Your task to perform on an android device: empty trash in the gmail app Image 0: 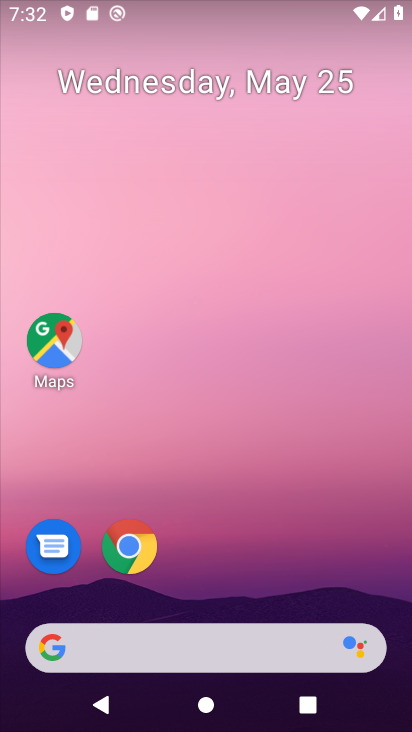
Step 0: drag from (373, 587) to (379, 272)
Your task to perform on an android device: empty trash in the gmail app Image 1: 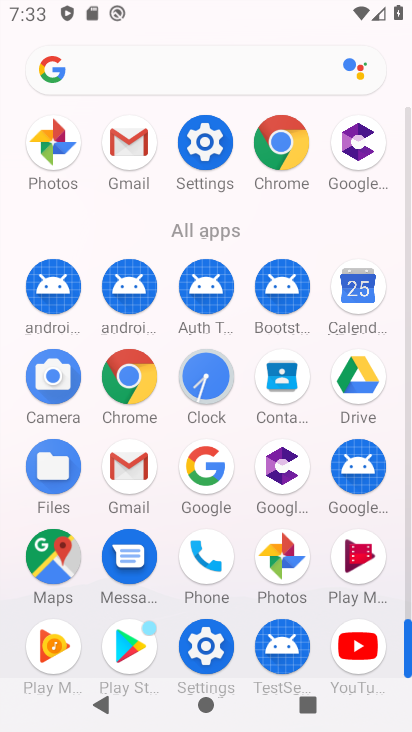
Step 1: click (142, 478)
Your task to perform on an android device: empty trash in the gmail app Image 2: 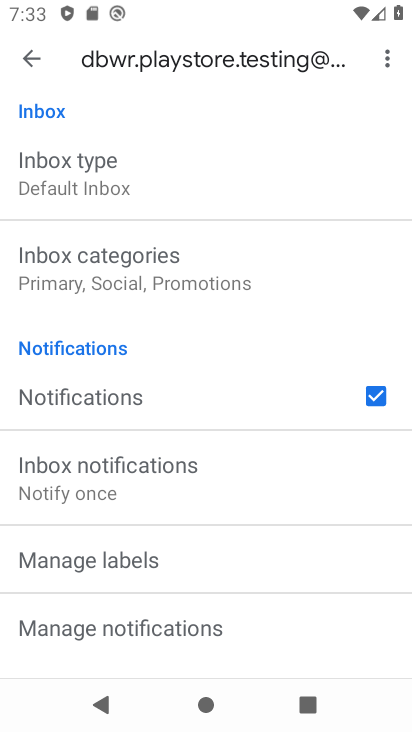
Step 2: click (35, 63)
Your task to perform on an android device: empty trash in the gmail app Image 3: 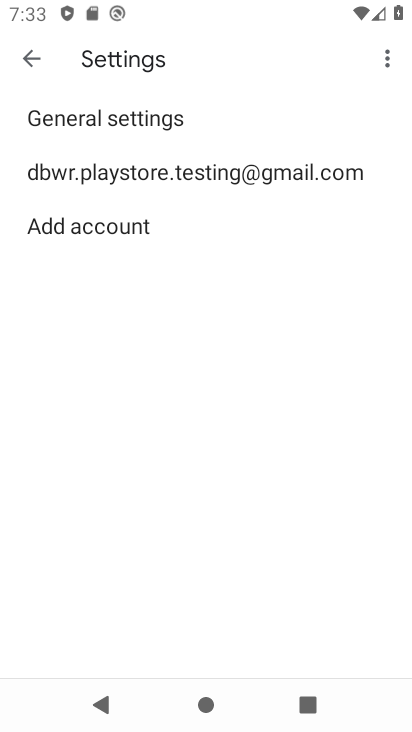
Step 3: click (35, 63)
Your task to perform on an android device: empty trash in the gmail app Image 4: 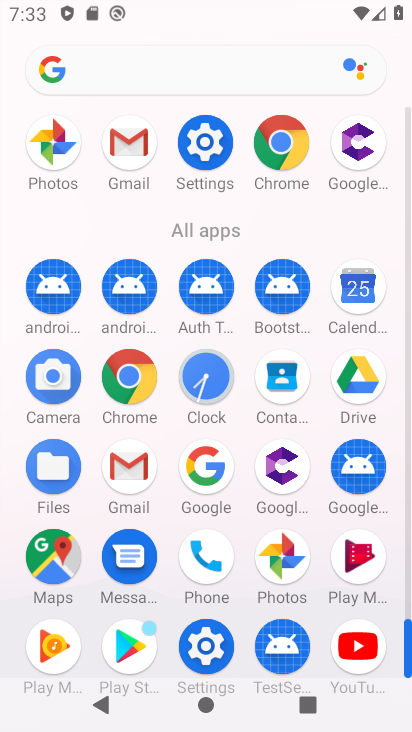
Step 4: click (125, 153)
Your task to perform on an android device: empty trash in the gmail app Image 5: 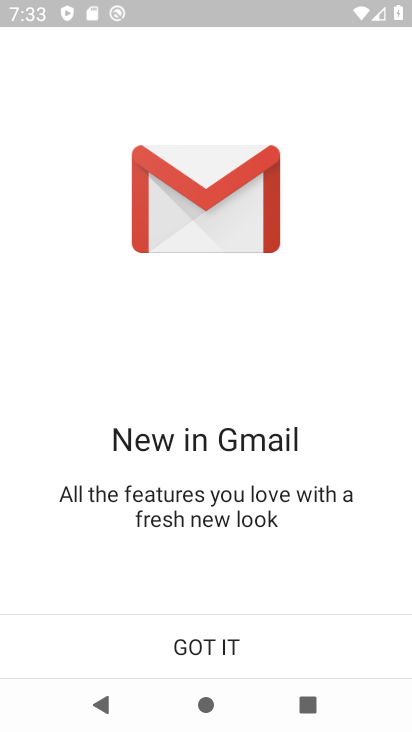
Step 5: click (283, 644)
Your task to perform on an android device: empty trash in the gmail app Image 6: 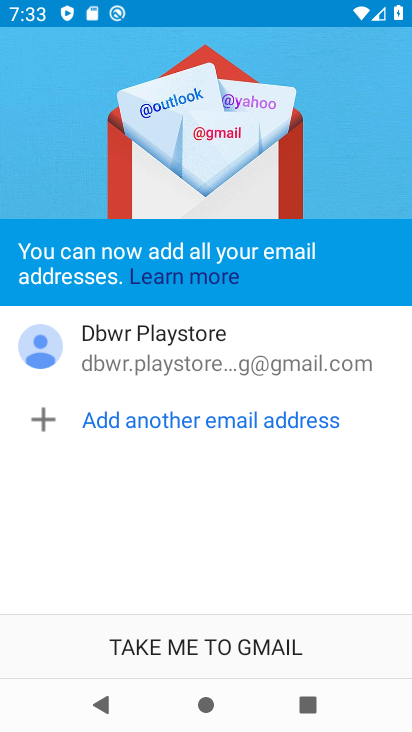
Step 6: click (283, 644)
Your task to perform on an android device: empty trash in the gmail app Image 7: 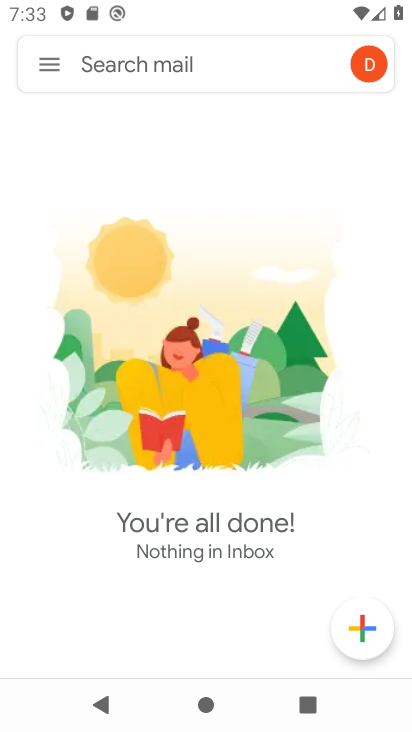
Step 7: click (55, 65)
Your task to perform on an android device: empty trash in the gmail app Image 8: 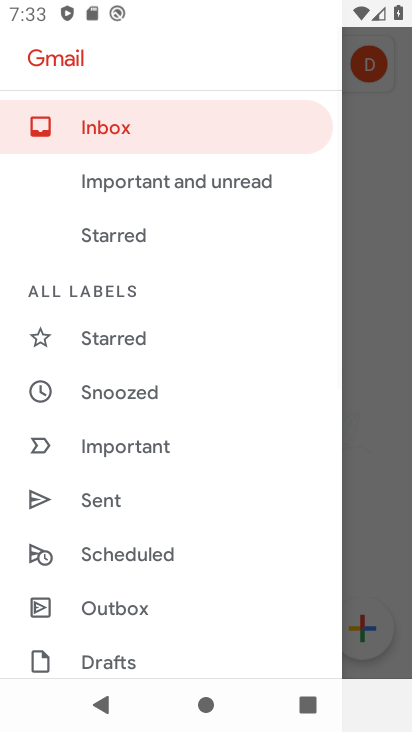
Step 8: drag from (242, 359) to (239, 308)
Your task to perform on an android device: empty trash in the gmail app Image 9: 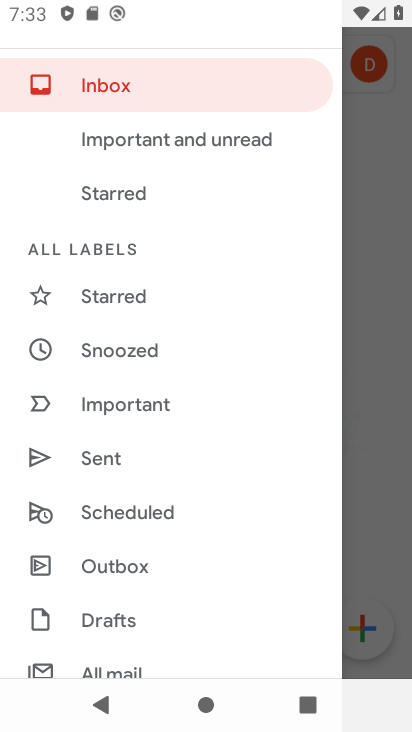
Step 9: drag from (263, 406) to (263, 331)
Your task to perform on an android device: empty trash in the gmail app Image 10: 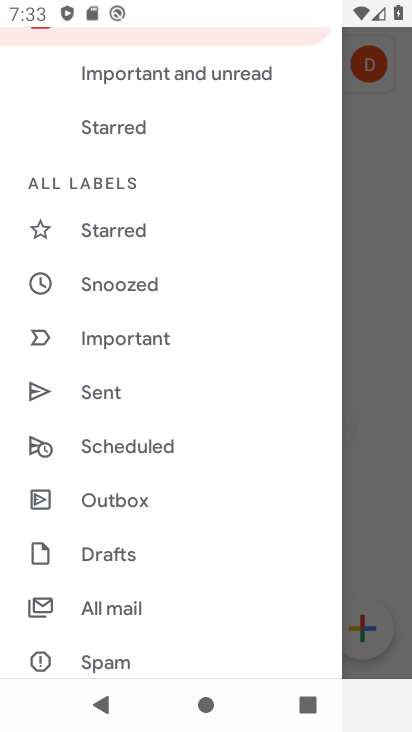
Step 10: drag from (280, 430) to (287, 349)
Your task to perform on an android device: empty trash in the gmail app Image 11: 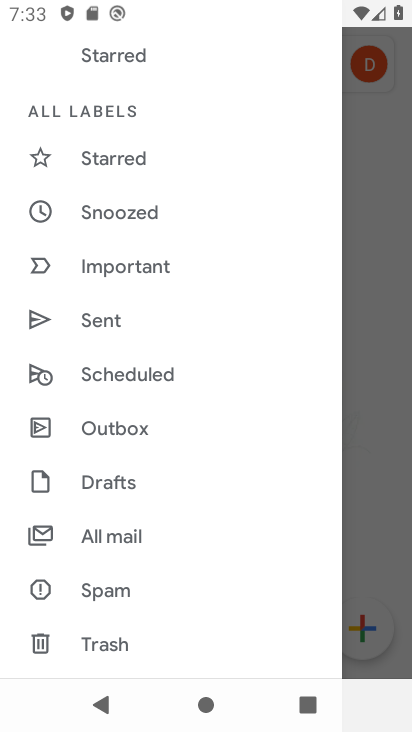
Step 11: drag from (287, 432) to (280, 368)
Your task to perform on an android device: empty trash in the gmail app Image 12: 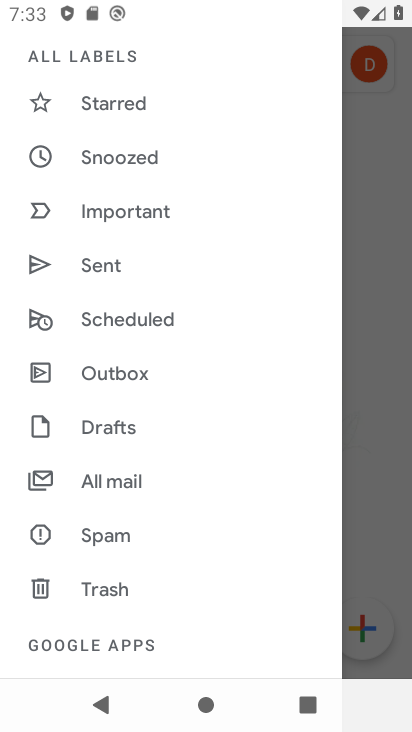
Step 12: drag from (274, 464) to (284, 377)
Your task to perform on an android device: empty trash in the gmail app Image 13: 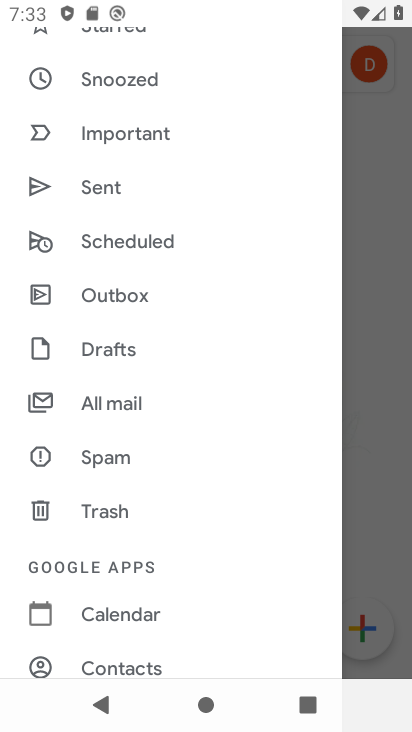
Step 13: drag from (295, 470) to (302, 393)
Your task to perform on an android device: empty trash in the gmail app Image 14: 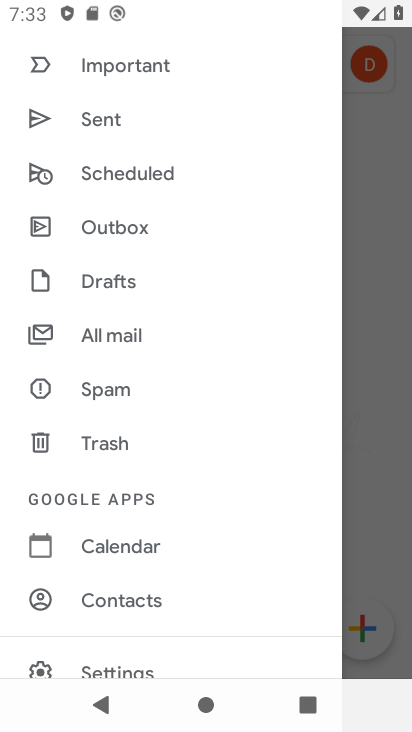
Step 14: drag from (285, 495) to (285, 404)
Your task to perform on an android device: empty trash in the gmail app Image 15: 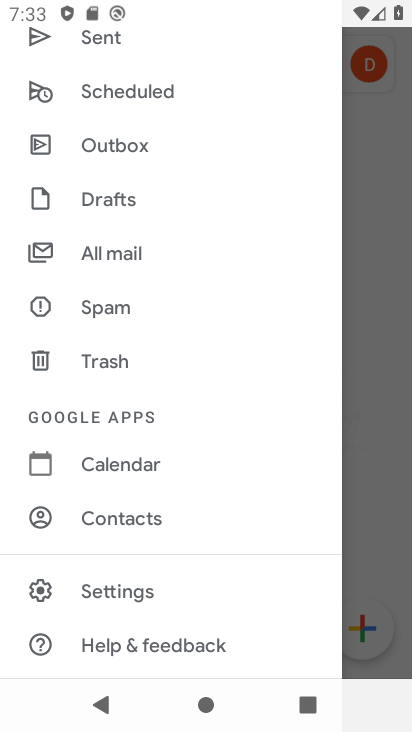
Step 15: drag from (280, 488) to (275, 395)
Your task to perform on an android device: empty trash in the gmail app Image 16: 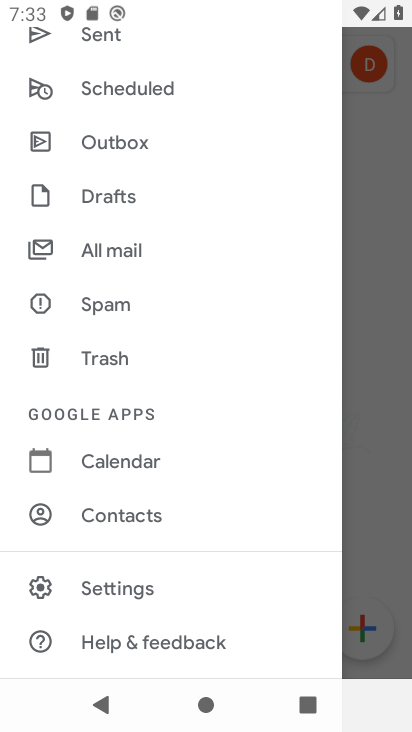
Step 16: click (139, 360)
Your task to perform on an android device: empty trash in the gmail app Image 17: 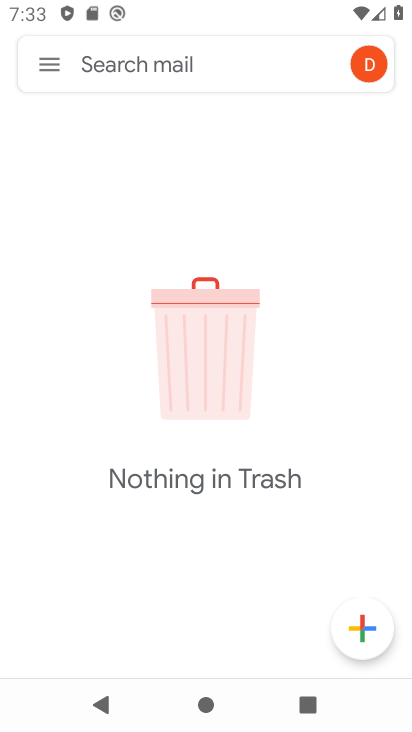
Step 17: task complete